Your task to perform on an android device: Open Chrome and go to the settings page Image 0: 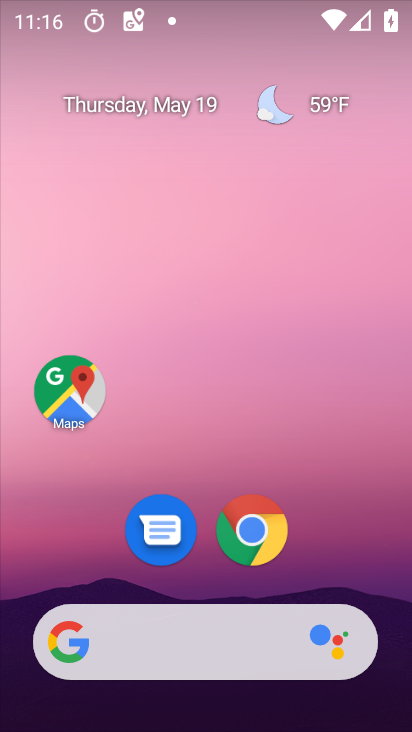
Step 0: drag from (339, 567) to (307, 229)
Your task to perform on an android device: Open Chrome and go to the settings page Image 1: 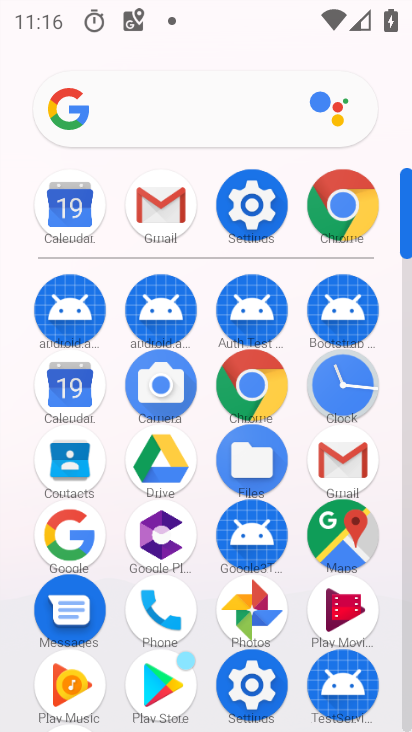
Step 1: click (249, 384)
Your task to perform on an android device: Open Chrome and go to the settings page Image 2: 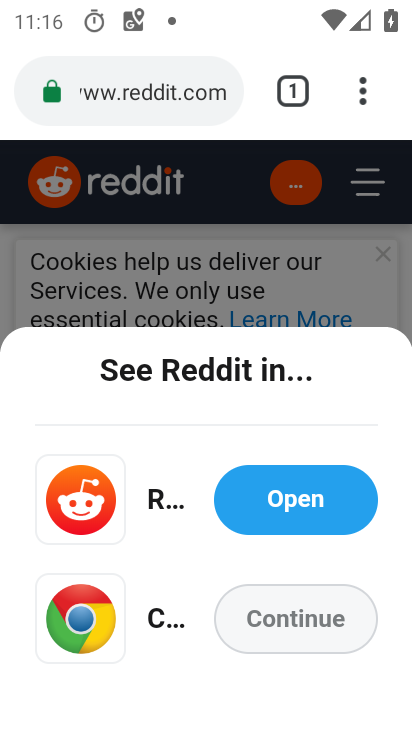
Step 2: drag from (364, 105) to (78, 554)
Your task to perform on an android device: Open Chrome and go to the settings page Image 3: 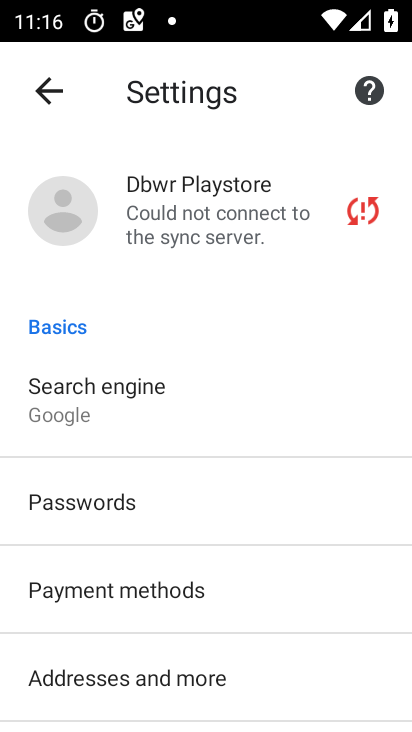
Step 3: drag from (328, 666) to (302, 327)
Your task to perform on an android device: Open Chrome and go to the settings page Image 4: 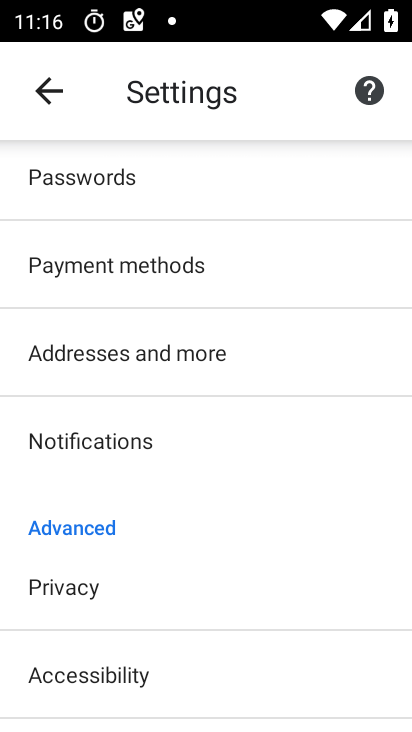
Step 4: drag from (284, 665) to (255, 285)
Your task to perform on an android device: Open Chrome and go to the settings page Image 5: 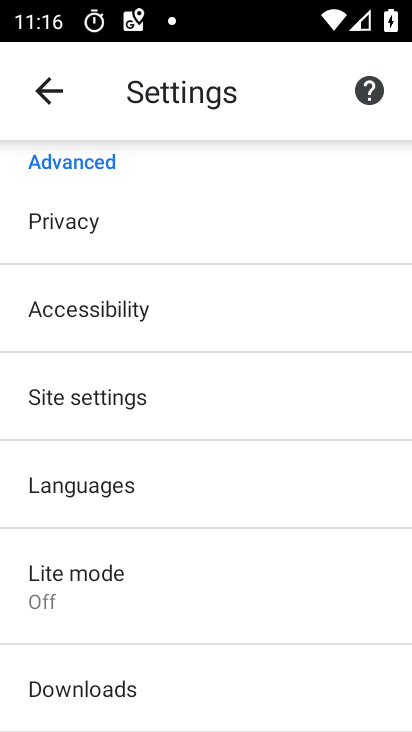
Step 5: drag from (266, 622) to (250, 372)
Your task to perform on an android device: Open Chrome and go to the settings page Image 6: 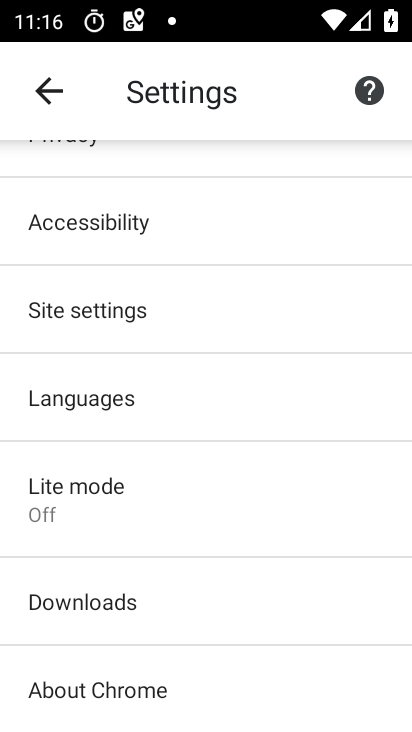
Step 6: click (254, 323)
Your task to perform on an android device: Open Chrome and go to the settings page Image 7: 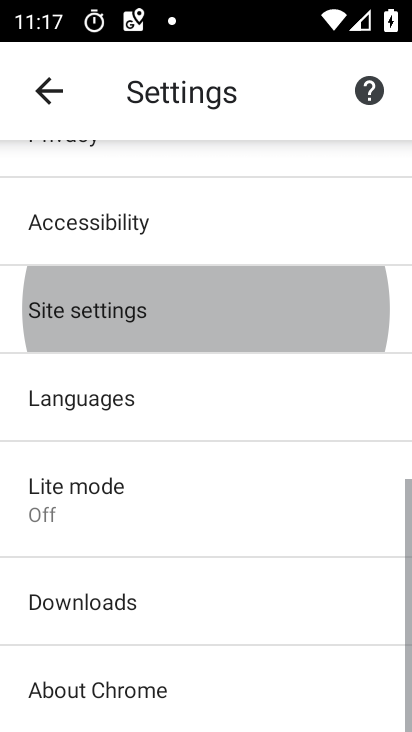
Step 7: task complete